Your task to perform on an android device: Turn on the flashlight Image 0: 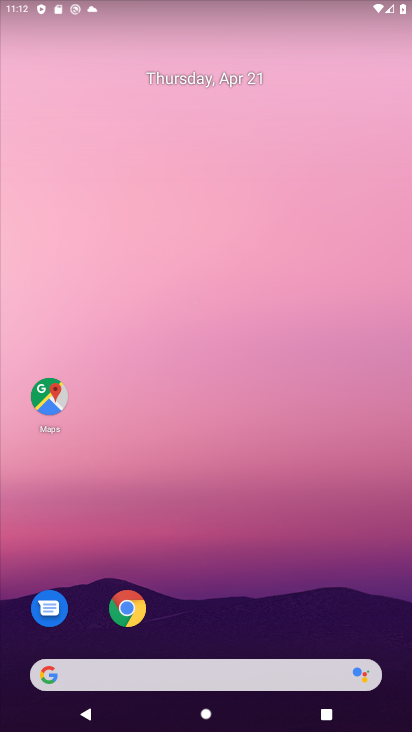
Step 0: drag from (243, 578) to (265, 286)
Your task to perform on an android device: Turn on the flashlight Image 1: 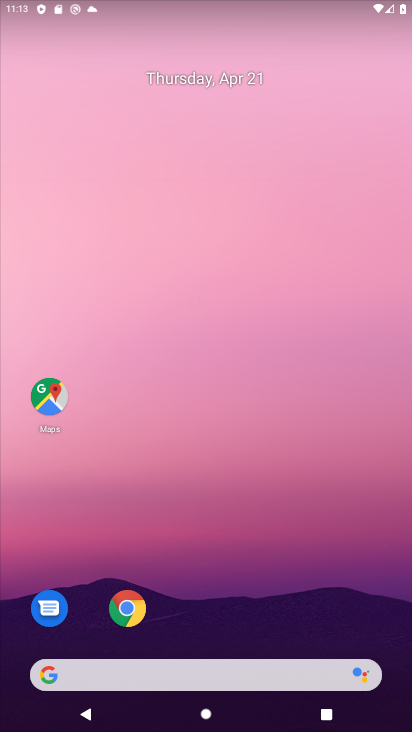
Step 1: drag from (148, 629) to (165, 301)
Your task to perform on an android device: Turn on the flashlight Image 2: 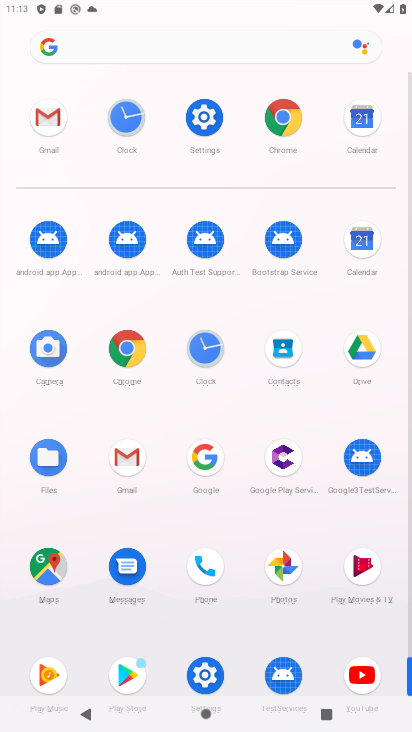
Step 2: click (208, 120)
Your task to perform on an android device: Turn on the flashlight Image 3: 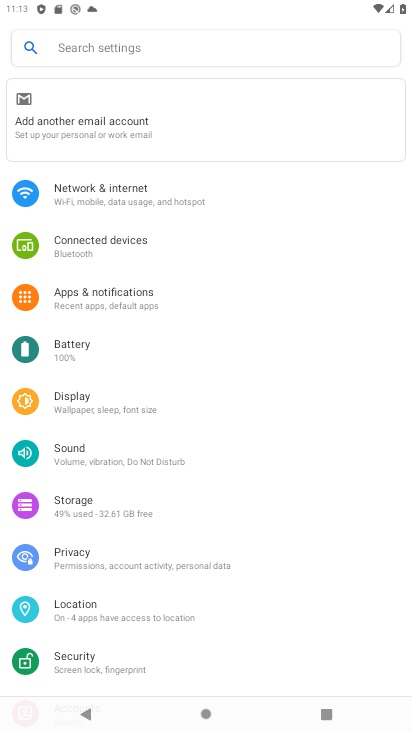
Step 3: click (95, 404)
Your task to perform on an android device: Turn on the flashlight Image 4: 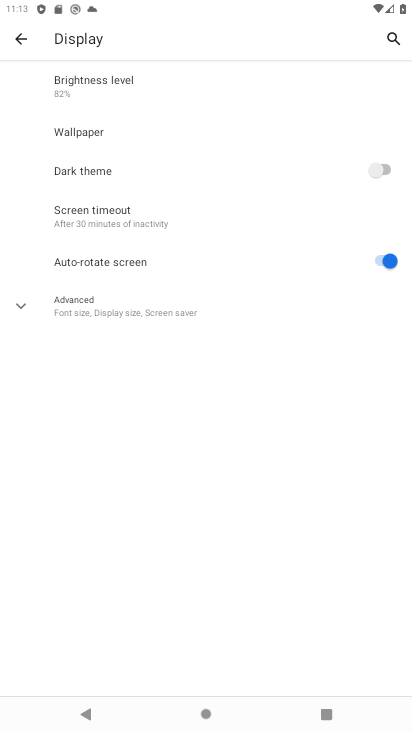
Step 4: task complete